Your task to perform on an android device: See recent photos Image 0: 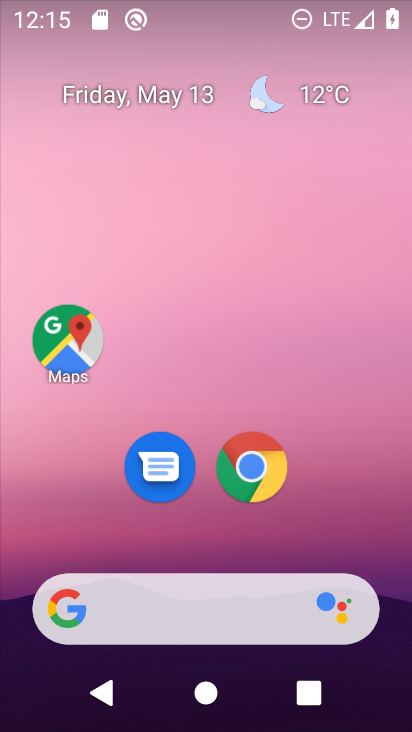
Step 0: drag from (352, 513) to (239, 67)
Your task to perform on an android device: See recent photos Image 1: 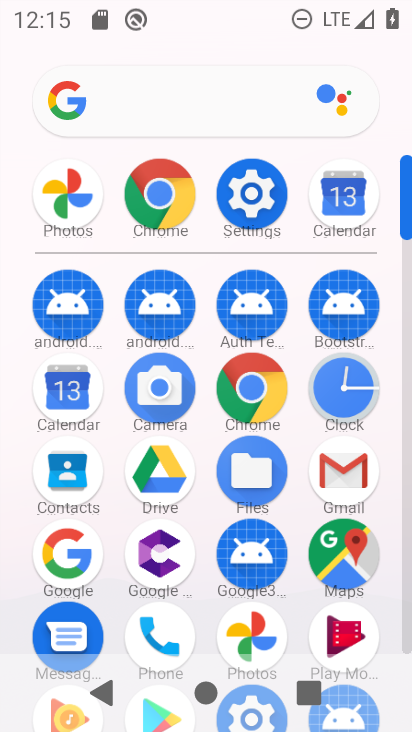
Step 1: drag from (16, 527) to (13, 239)
Your task to perform on an android device: See recent photos Image 2: 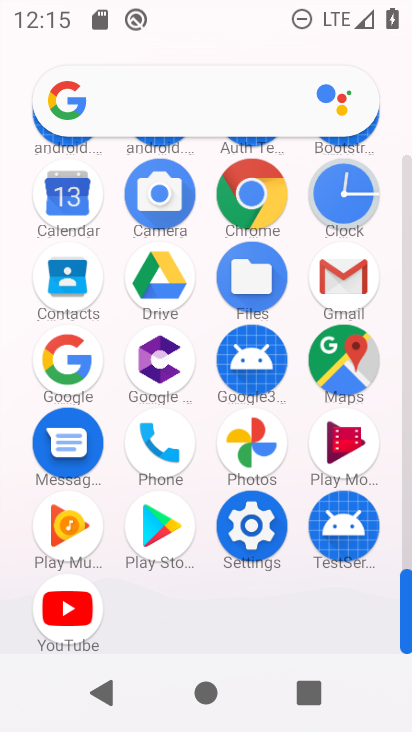
Step 2: click (243, 436)
Your task to perform on an android device: See recent photos Image 3: 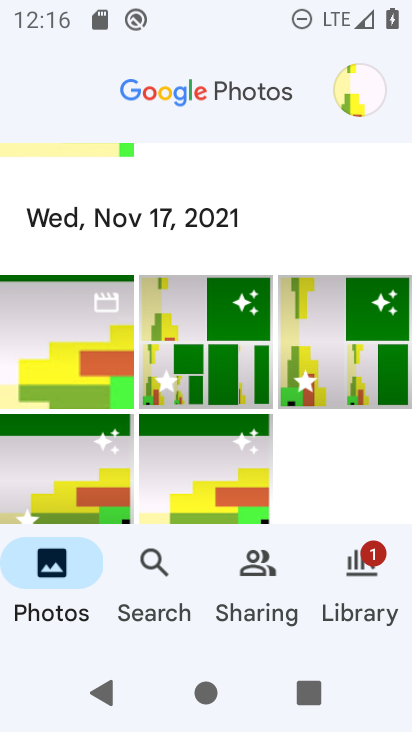
Step 3: task complete